Your task to perform on an android device: Search for vegetarian restaurants on Maps Image 0: 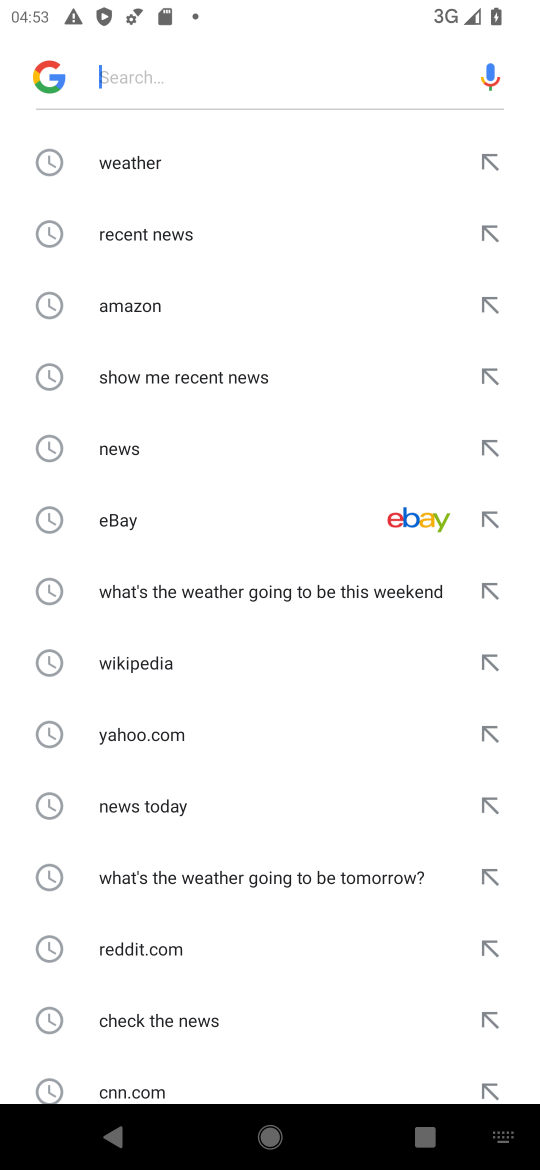
Step 0: press home button
Your task to perform on an android device: Search for vegetarian restaurants on Maps Image 1: 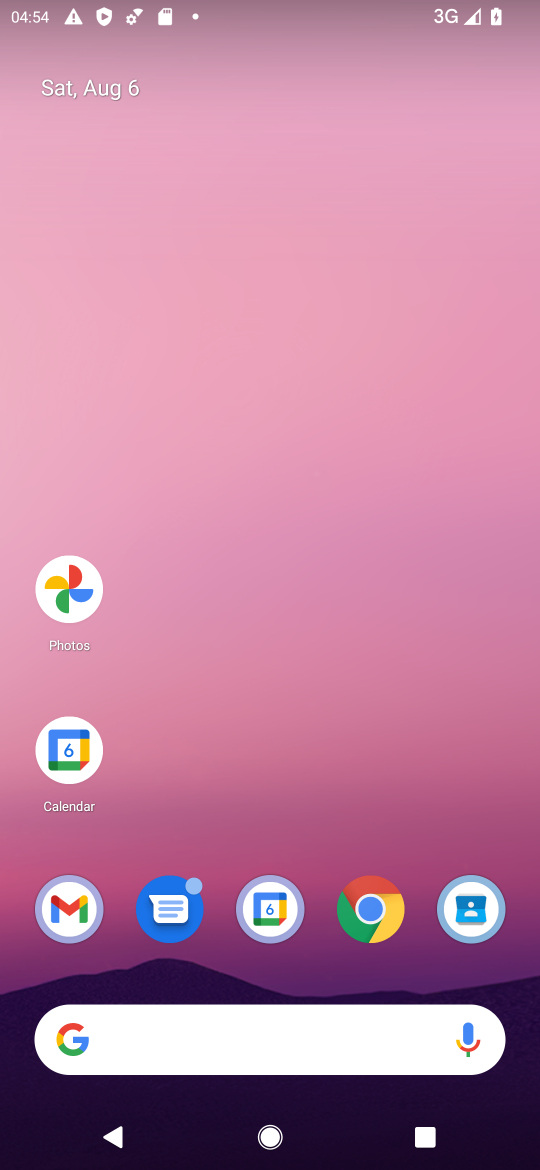
Step 1: drag from (333, 768) to (306, 216)
Your task to perform on an android device: Search for vegetarian restaurants on Maps Image 2: 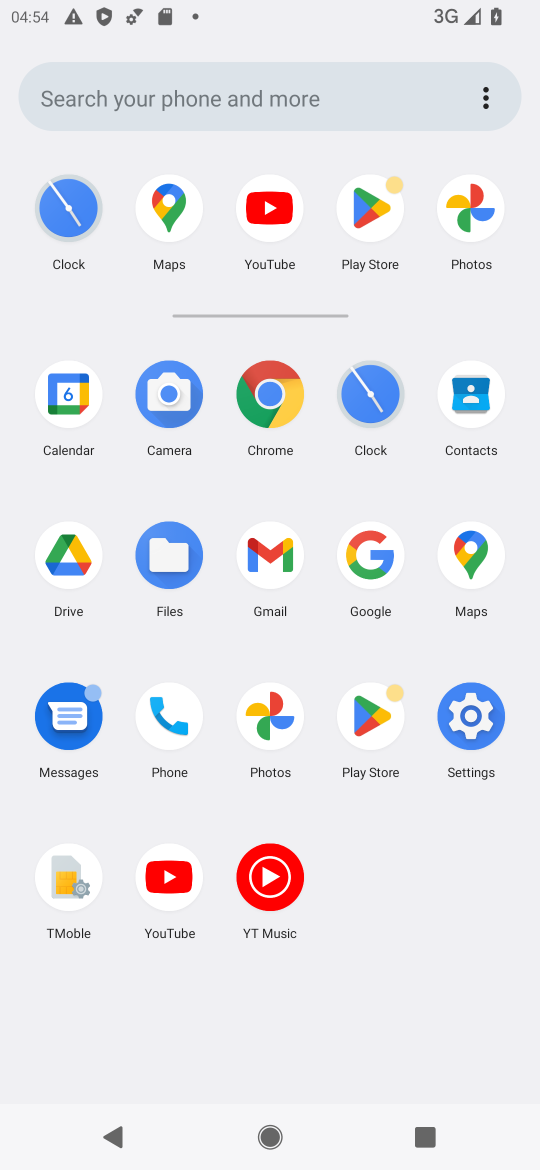
Step 2: click (181, 208)
Your task to perform on an android device: Search for vegetarian restaurants on Maps Image 3: 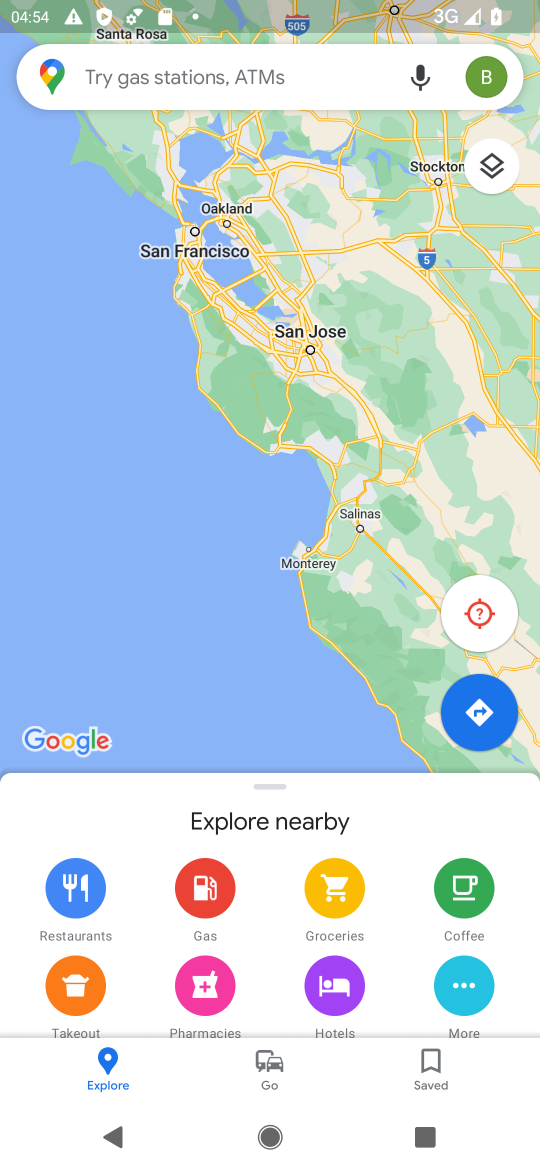
Step 3: click (207, 70)
Your task to perform on an android device: Search for vegetarian restaurants on Maps Image 4: 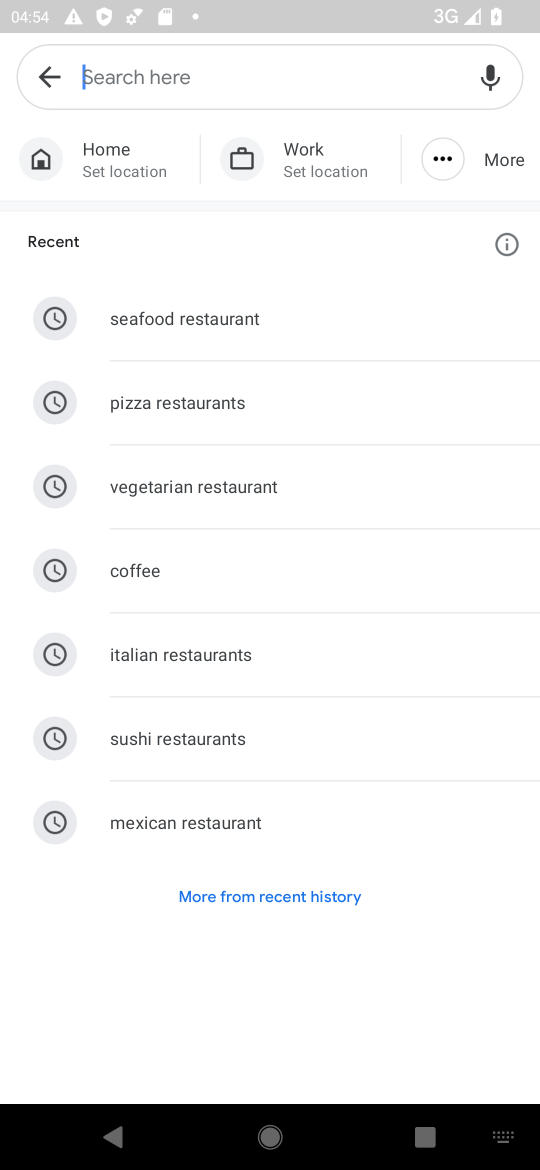
Step 4: click (183, 481)
Your task to perform on an android device: Search for vegetarian restaurants on Maps Image 5: 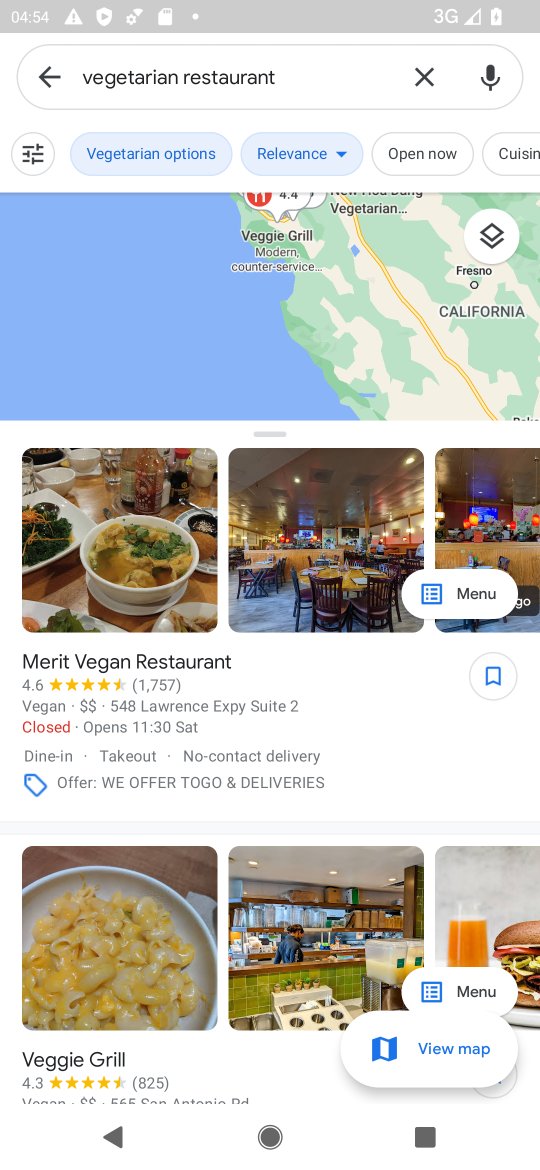
Step 5: task complete